Your task to perform on an android device: Open maps Image 0: 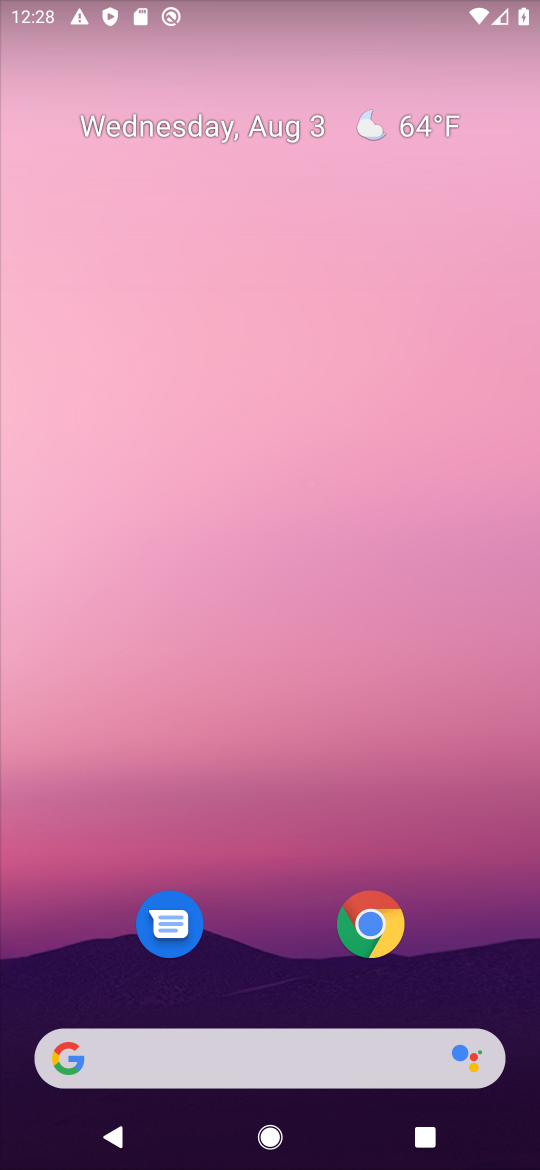
Step 0: drag from (236, 992) to (281, 51)
Your task to perform on an android device: Open maps Image 1: 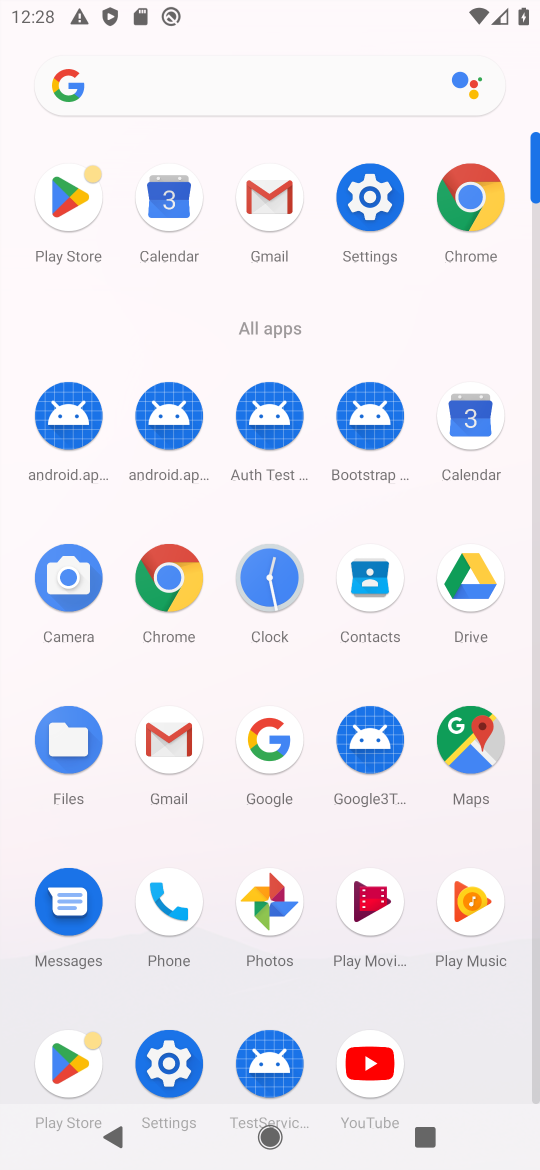
Step 1: click (468, 746)
Your task to perform on an android device: Open maps Image 2: 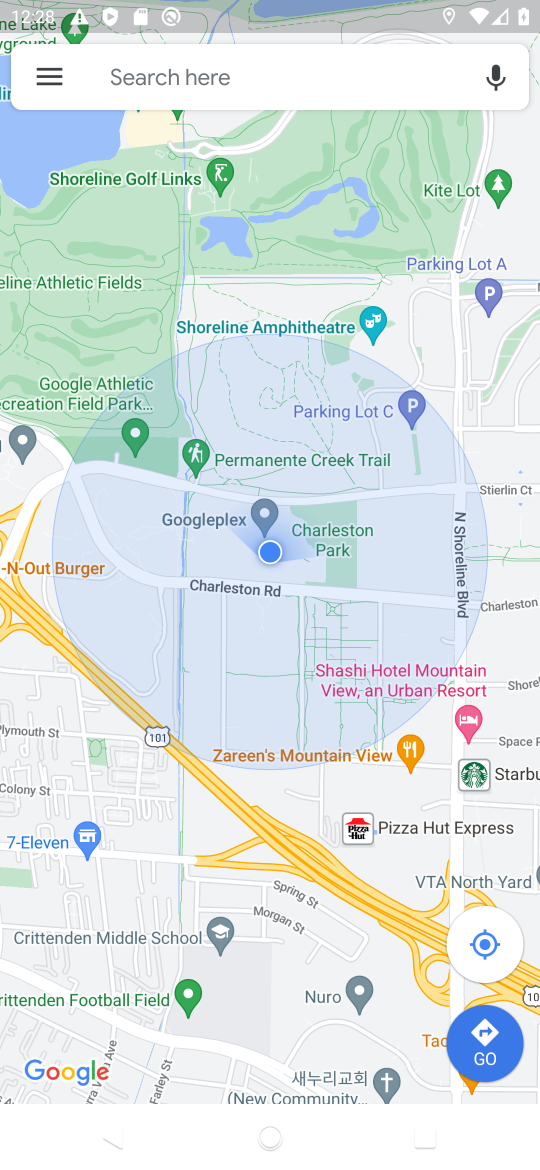
Step 2: task complete